Your task to perform on an android device: open sync settings in chrome Image 0: 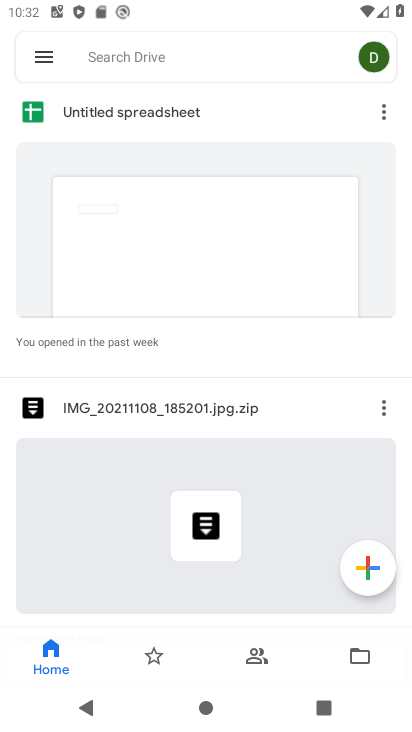
Step 0: press back button
Your task to perform on an android device: open sync settings in chrome Image 1: 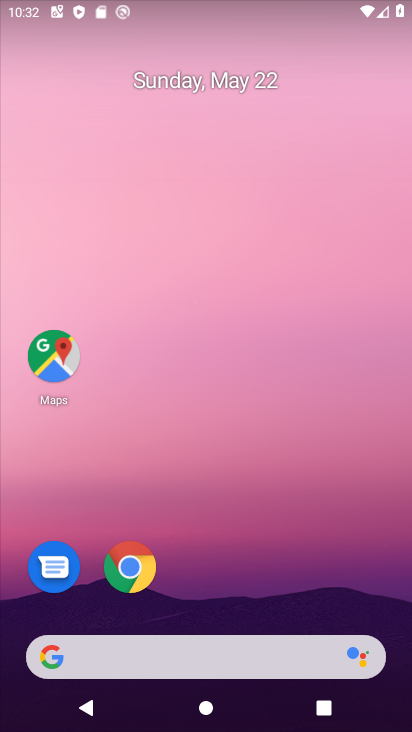
Step 1: drag from (247, 595) to (257, 84)
Your task to perform on an android device: open sync settings in chrome Image 2: 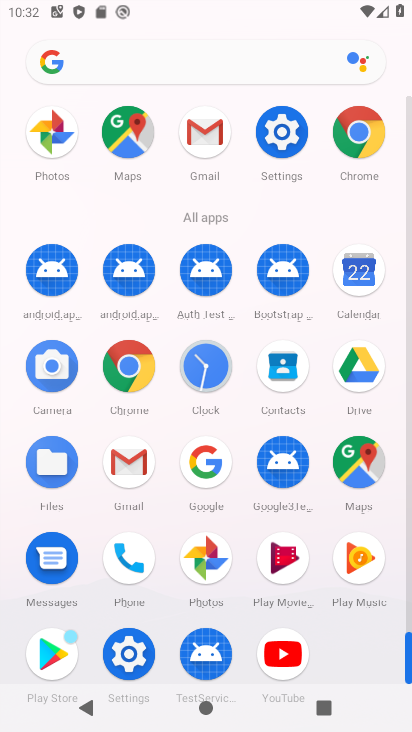
Step 2: click (120, 372)
Your task to perform on an android device: open sync settings in chrome Image 3: 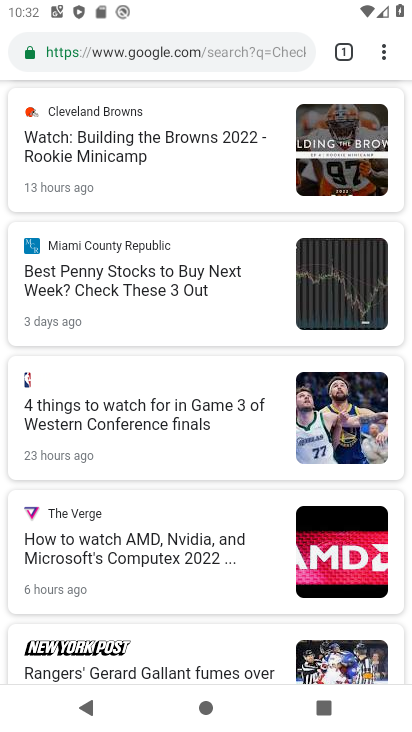
Step 3: drag from (385, 51) to (190, 569)
Your task to perform on an android device: open sync settings in chrome Image 4: 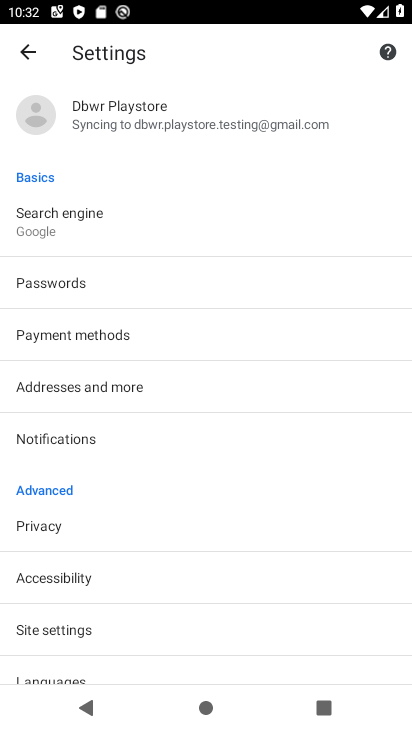
Step 4: click (131, 119)
Your task to perform on an android device: open sync settings in chrome Image 5: 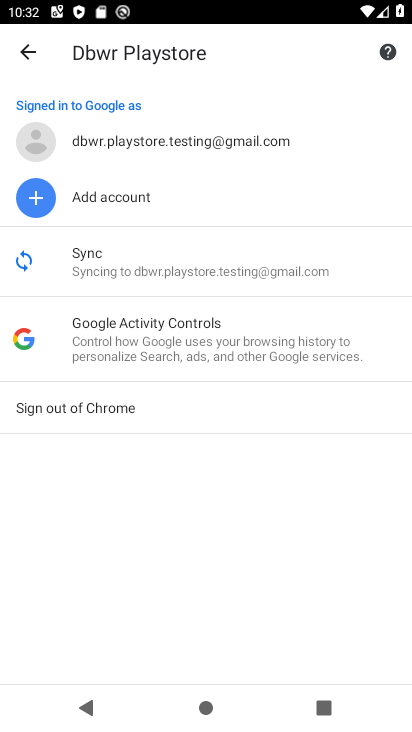
Step 5: click (140, 282)
Your task to perform on an android device: open sync settings in chrome Image 6: 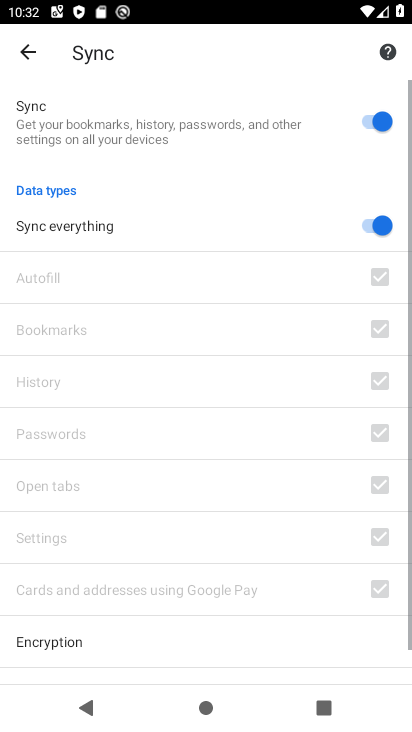
Step 6: task complete